Your task to perform on an android device: move a message to another label in the gmail app Image 0: 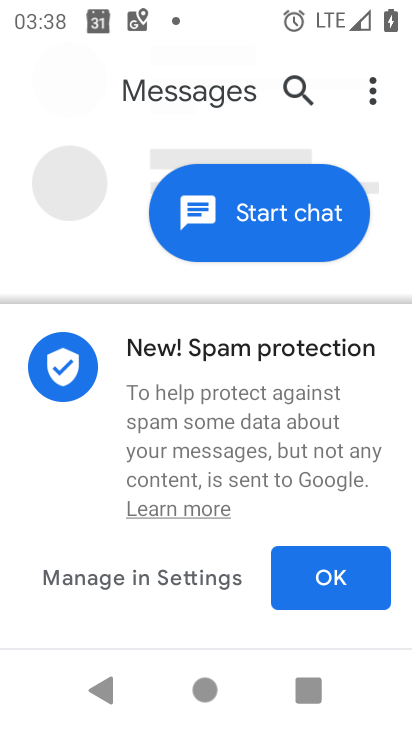
Step 0: press home button
Your task to perform on an android device: move a message to another label in the gmail app Image 1: 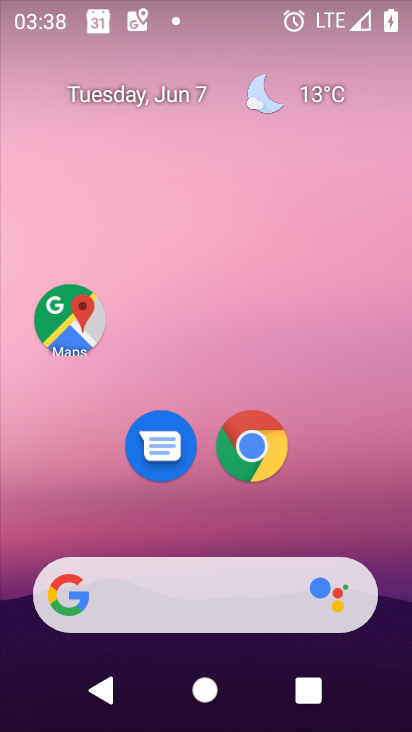
Step 1: drag from (237, 698) to (323, 237)
Your task to perform on an android device: move a message to another label in the gmail app Image 2: 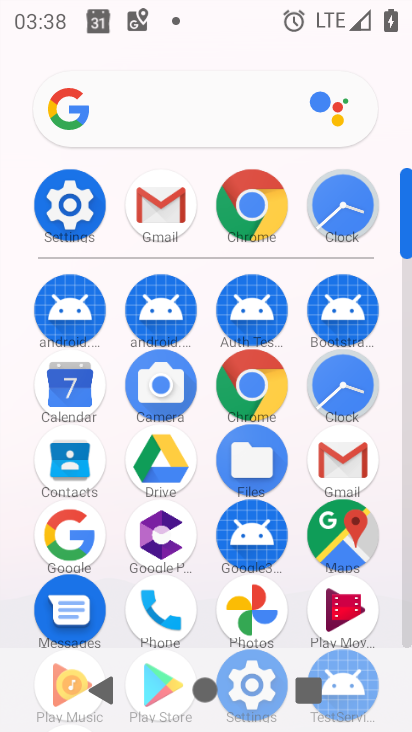
Step 2: click (358, 460)
Your task to perform on an android device: move a message to another label in the gmail app Image 3: 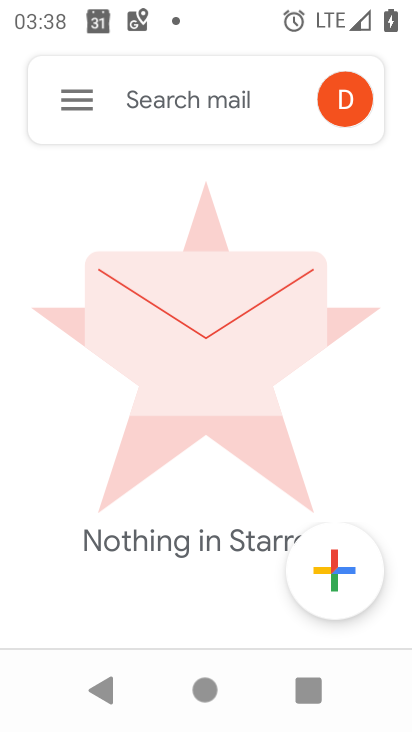
Step 3: task complete